Your task to perform on an android device: Empty the shopping cart on walmart. Image 0: 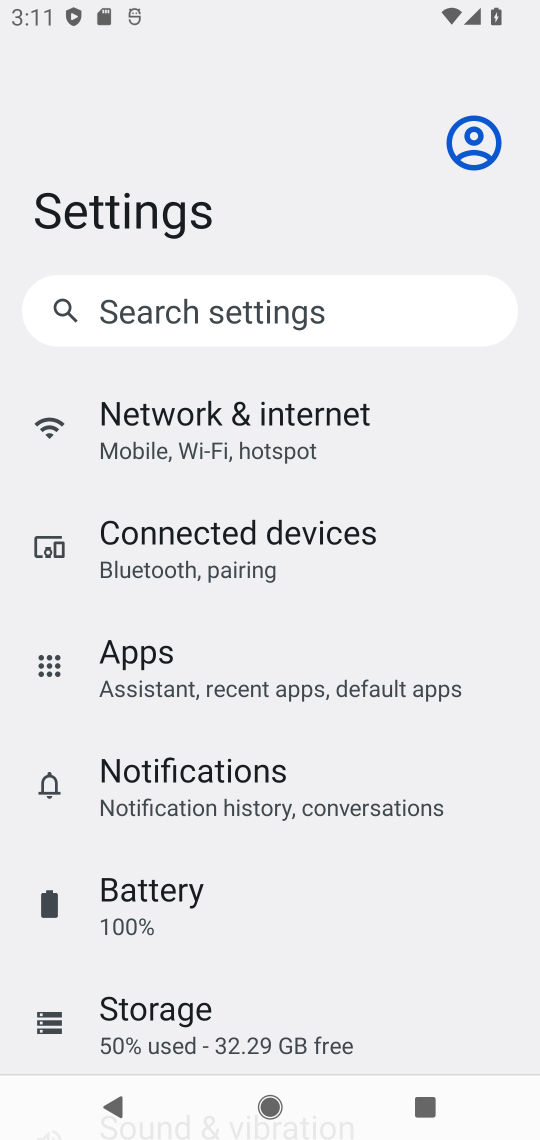
Step 0: press home button
Your task to perform on an android device: Empty the shopping cart on walmart. Image 1: 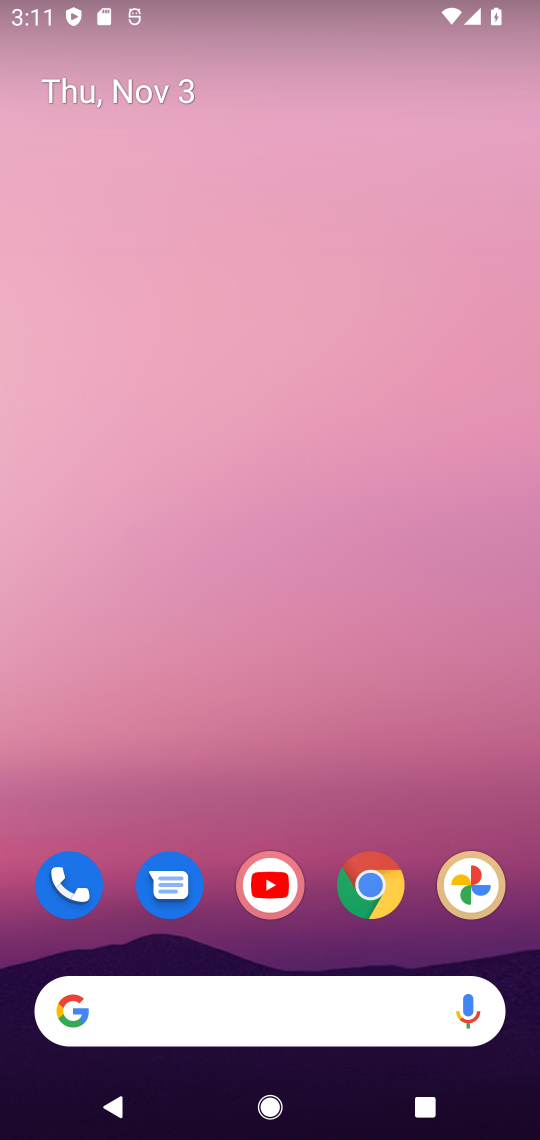
Step 1: click (367, 883)
Your task to perform on an android device: Empty the shopping cart on walmart. Image 2: 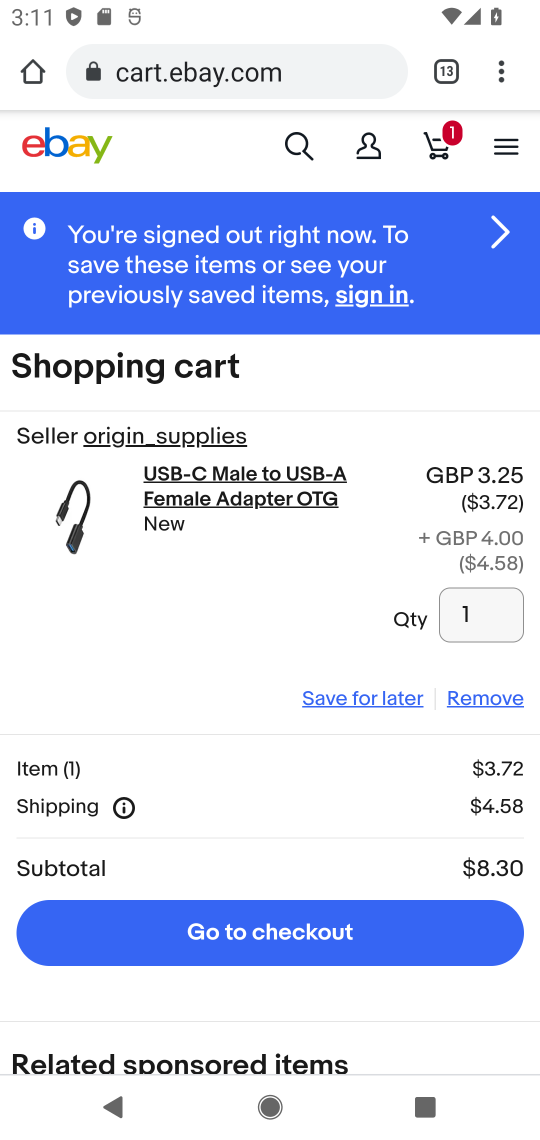
Step 2: drag from (500, 76) to (293, 267)
Your task to perform on an android device: Empty the shopping cart on walmart. Image 3: 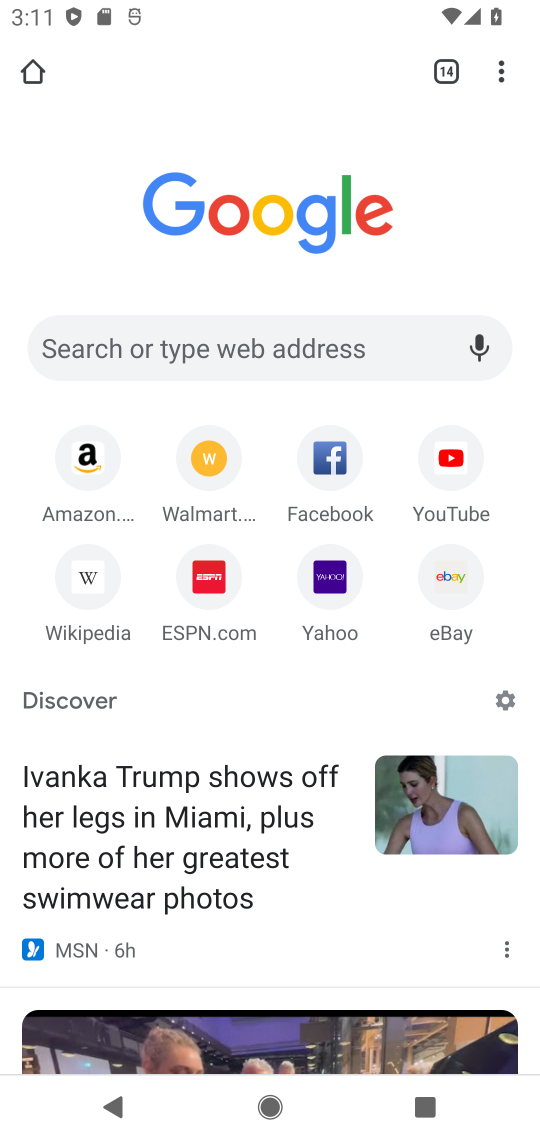
Step 3: click (265, 336)
Your task to perform on an android device: Empty the shopping cart on walmart. Image 4: 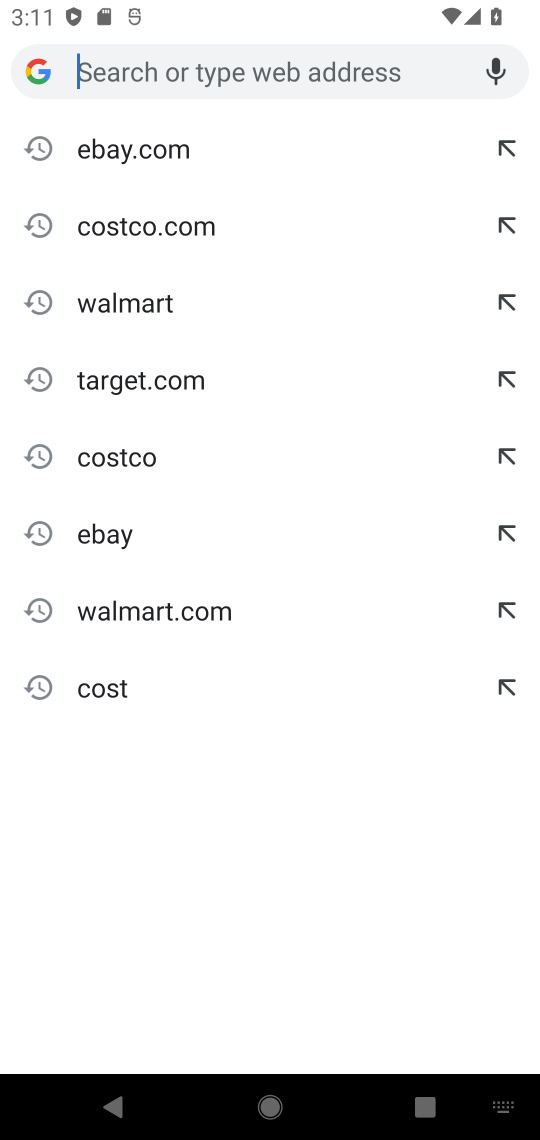
Step 4: type "walmart"
Your task to perform on an android device: Empty the shopping cart on walmart. Image 5: 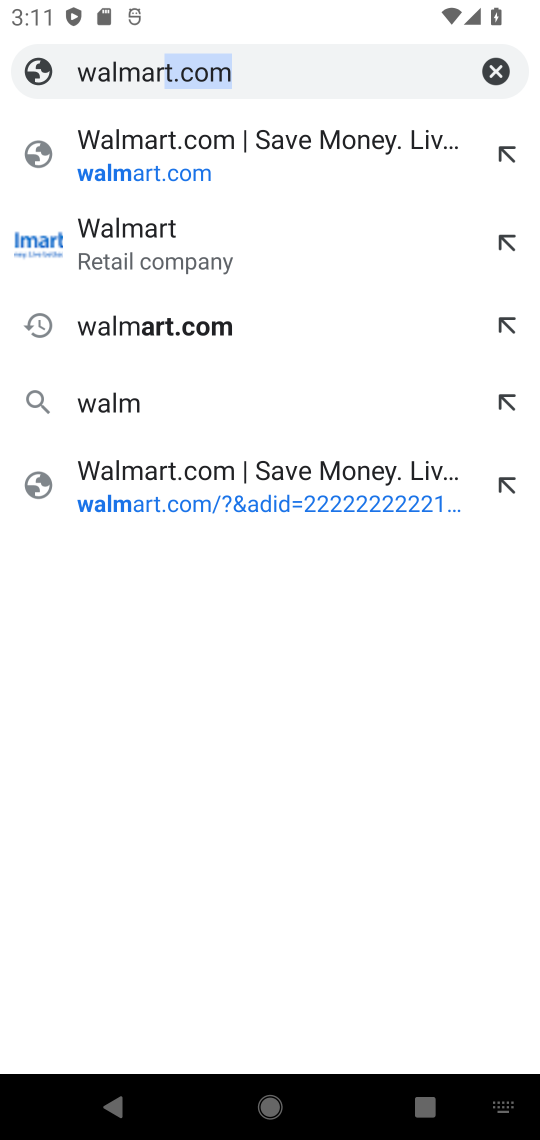
Step 5: type ""
Your task to perform on an android device: Empty the shopping cart on walmart. Image 6: 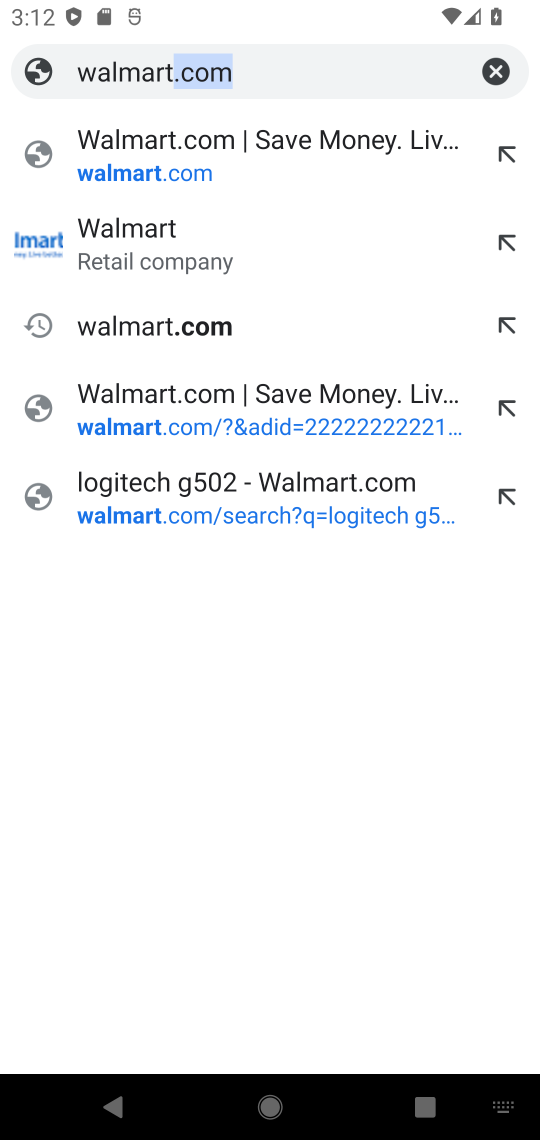
Step 6: click (135, 232)
Your task to perform on an android device: Empty the shopping cart on walmart. Image 7: 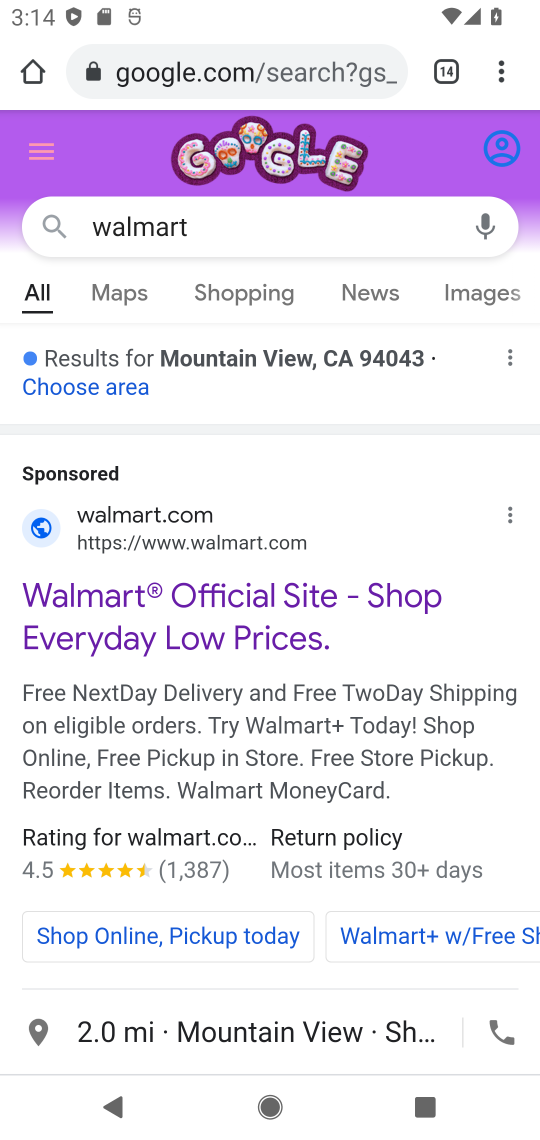
Step 7: click (159, 614)
Your task to perform on an android device: Empty the shopping cart on walmart. Image 8: 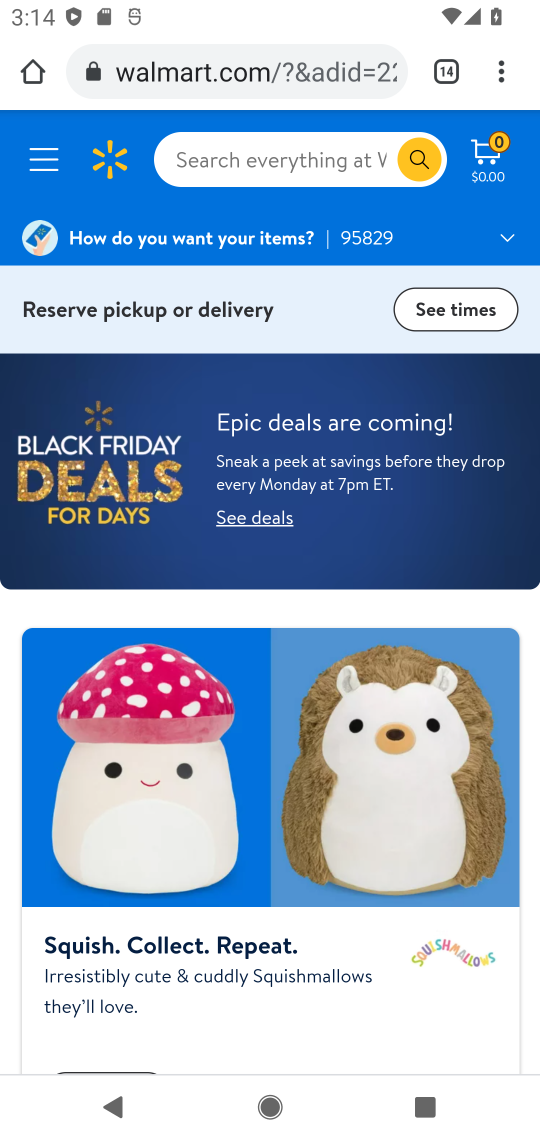
Step 8: click (495, 153)
Your task to perform on an android device: Empty the shopping cart on walmart. Image 9: 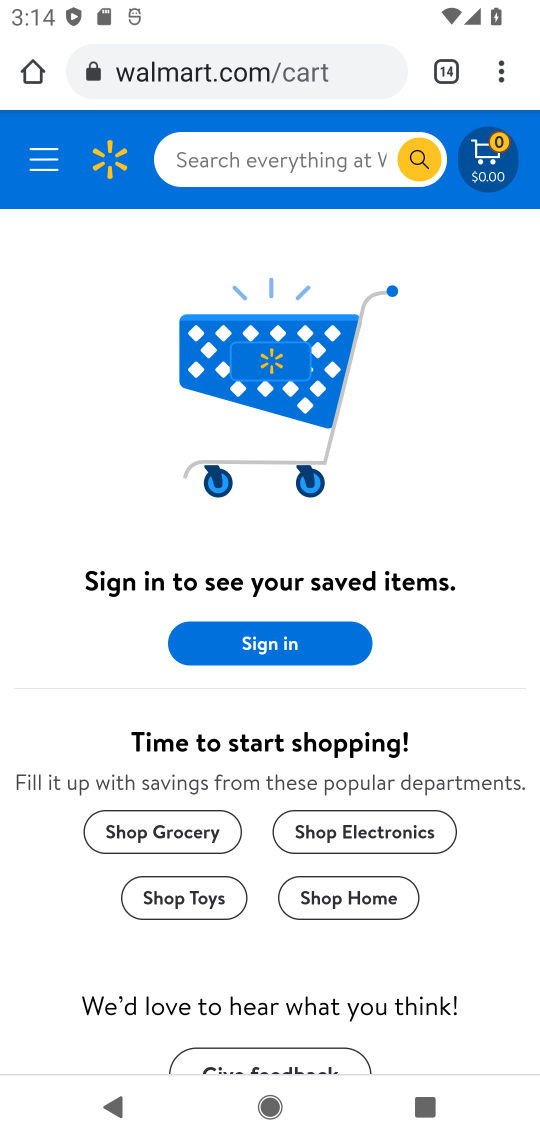
Step 9: task complete